Your task to perform on an android device: turn off wifi Image 0: 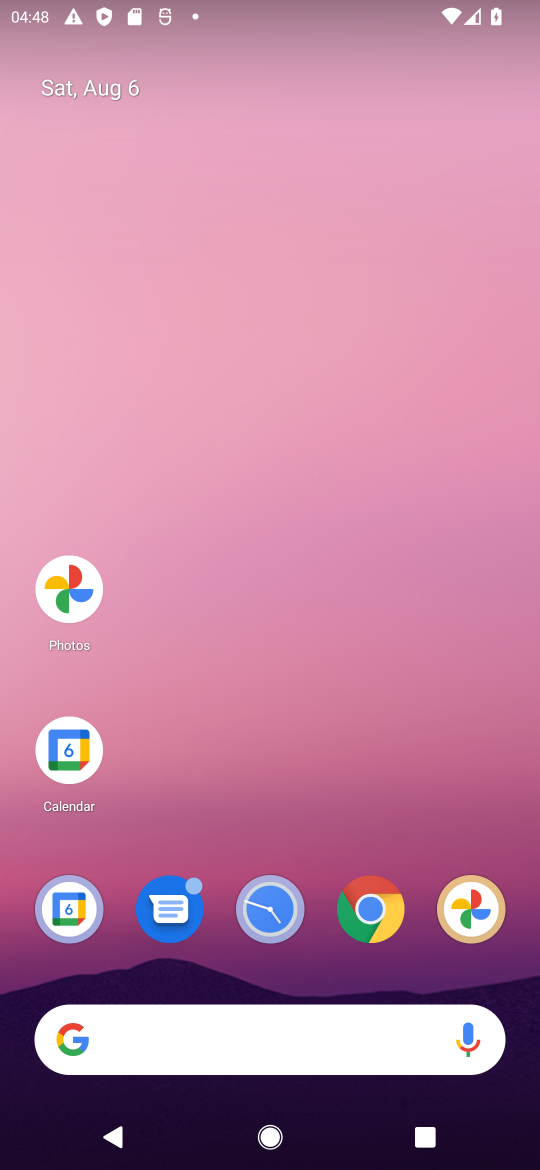
Step 0: drag from (268, 807) to (211, 20)
Your task to perform on an android device: turn off wifi Image 1: 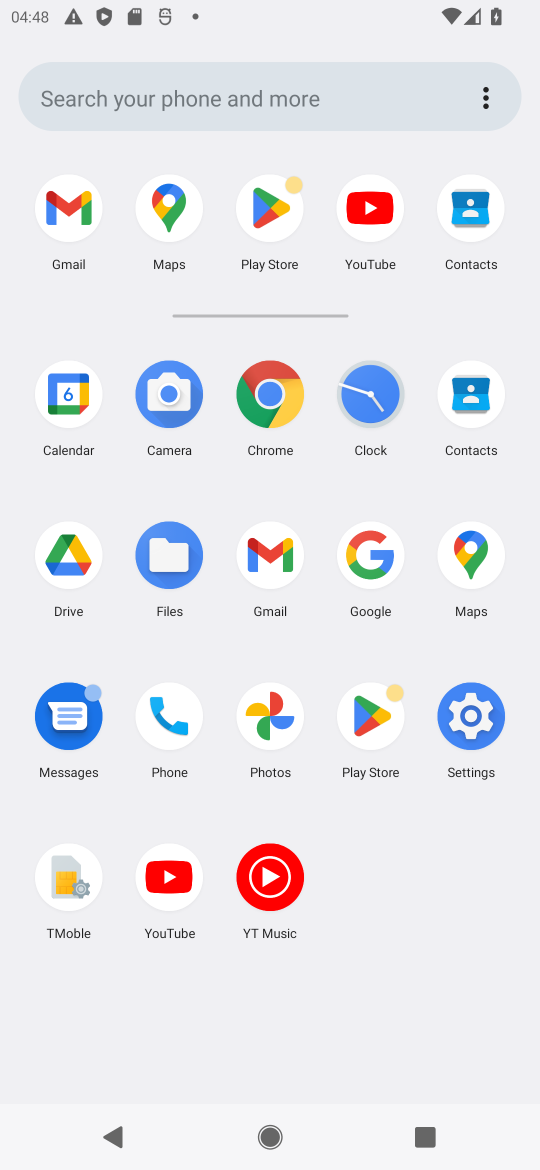
Step 1: click (480, 715)
Your task to perform on an android device: turn off wifi Image 2: 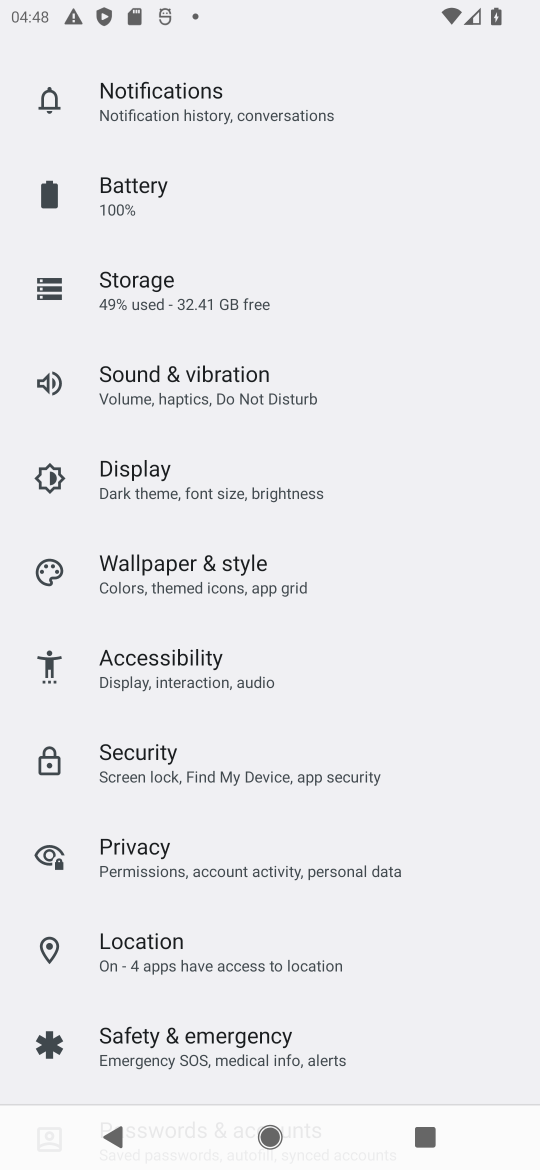
Step 2: drag from (251, 178) to (292, 825)
Your task to perform on an android device: turn off wifi Image 3: 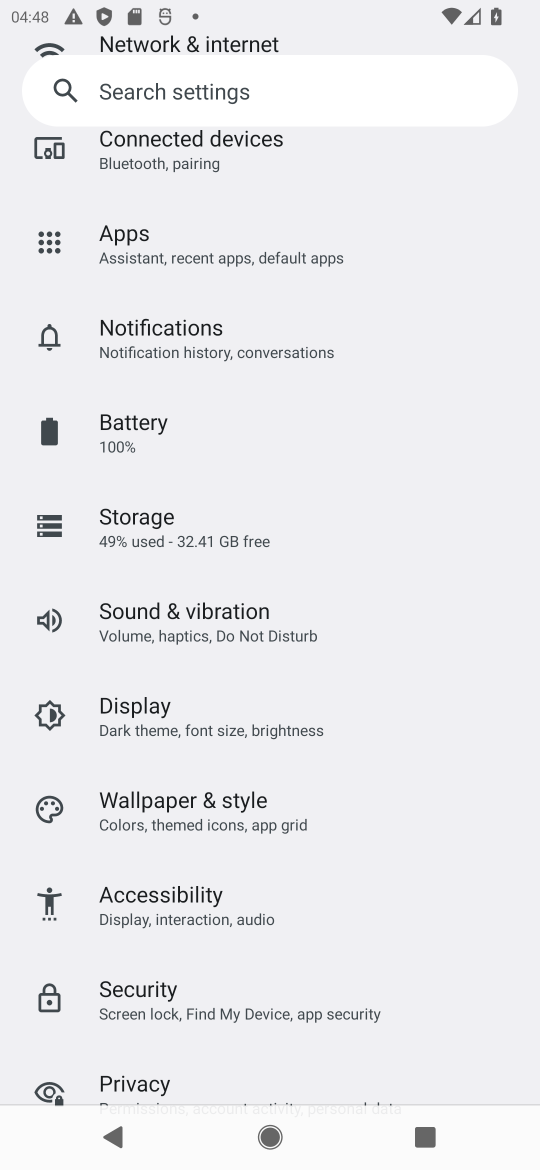
Step 3: drag from (378, 348) to (371, 853)
Your task to perform on an android device: turn off wifi Image 4: 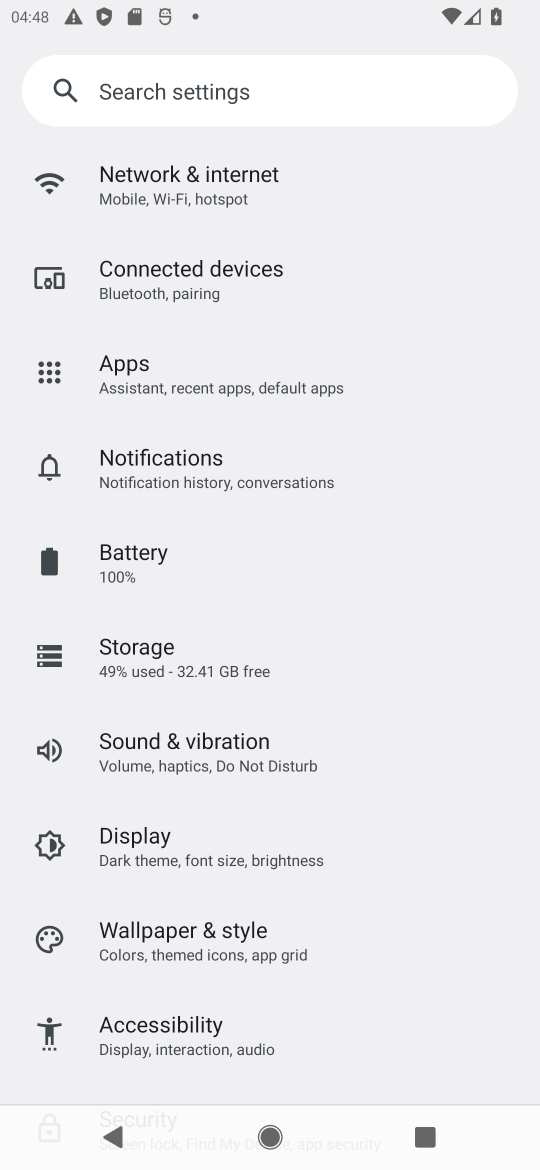
Step 4: click (191, 188)
Your task to perform on an android device: turn off wifi Image 5: 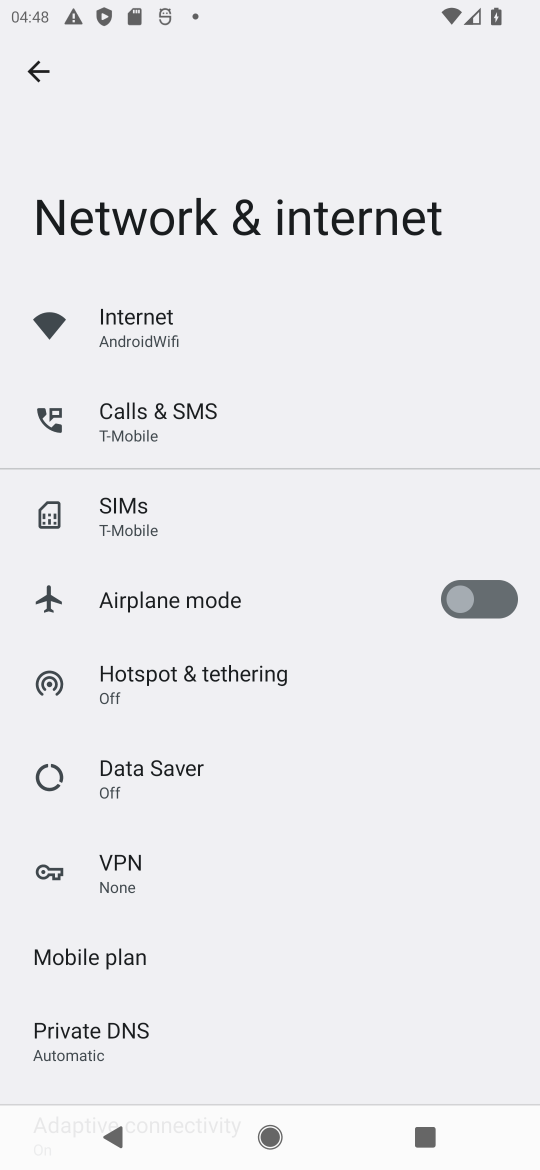
Step 5: click (145, 306)
Your task to perform on an android device: turn off wifi Image 6: 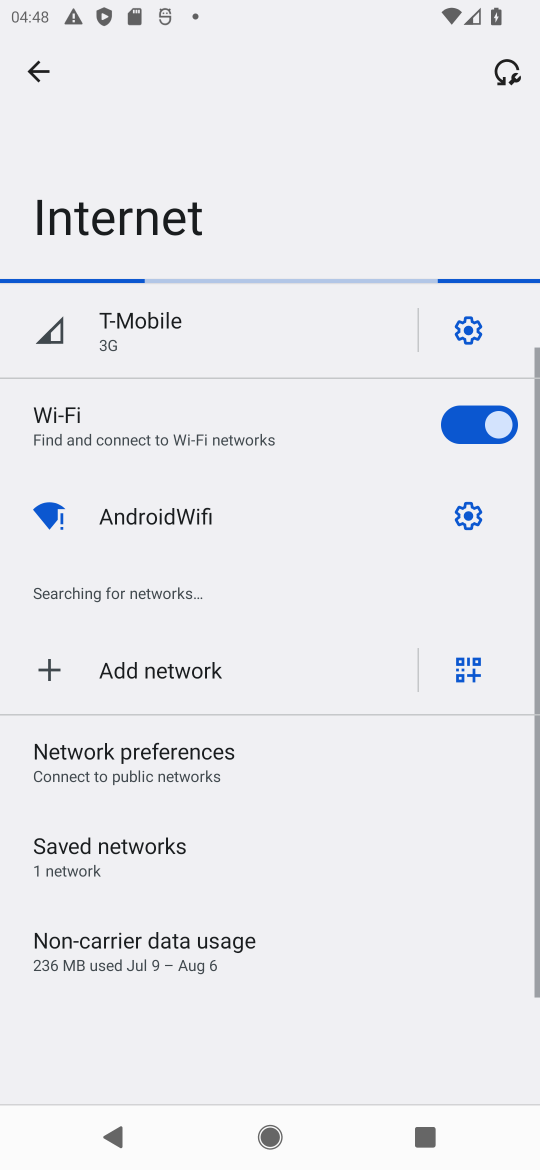
Step 6: click (486, 426)
Your task to perform on an android device: turn off wifi Image 7: 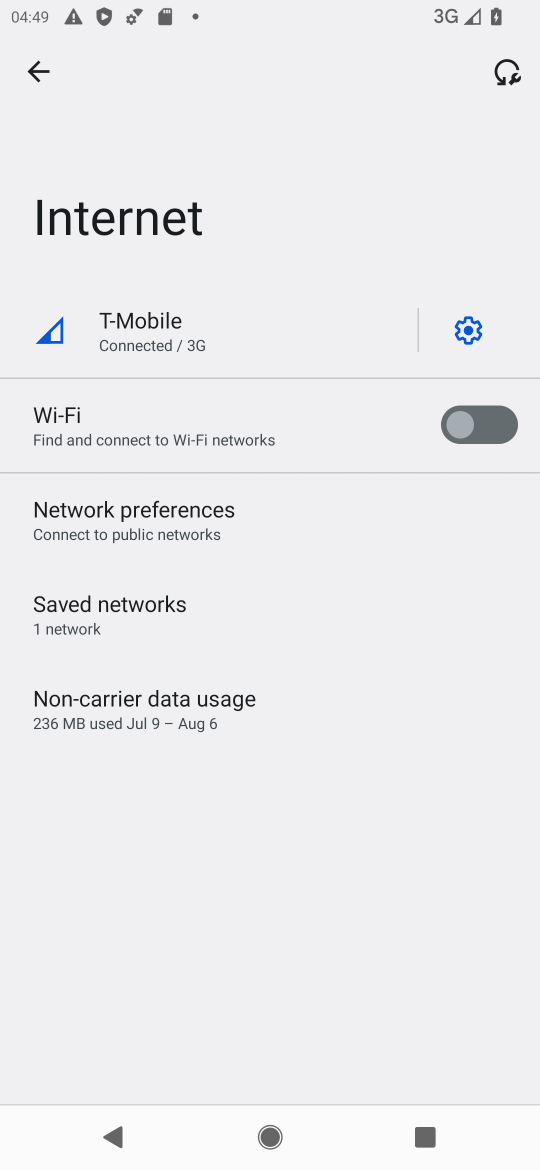
Step 7: task complete